Your task to perform on an android device: Clear the shopping cart on bestbuy.com. Search for "acer predator" on bestbuy.com, select the first entry, add it to the cart, then select checkout. Image 0: 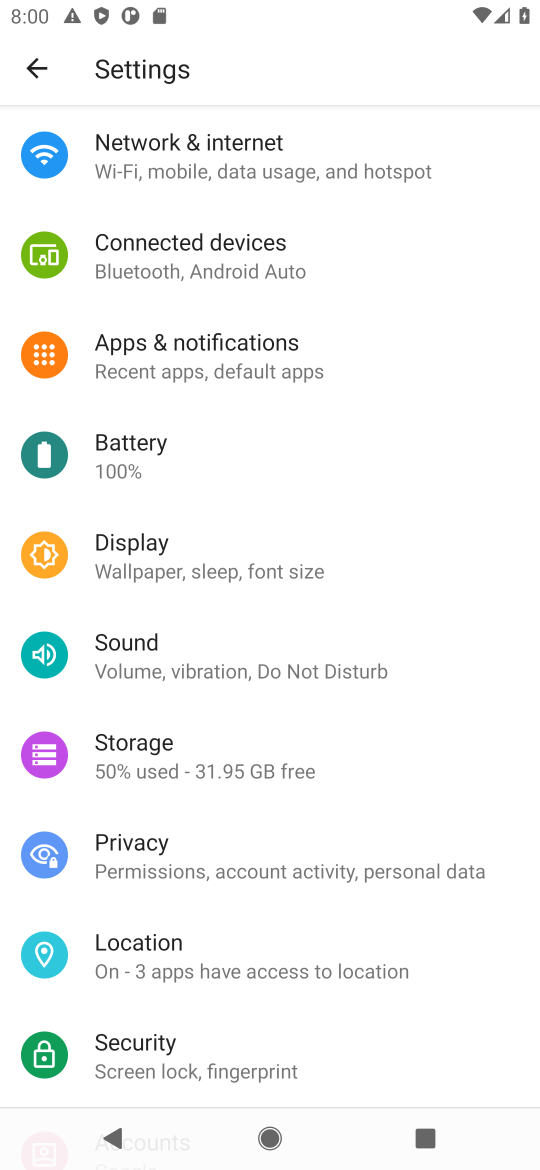
Step 0: press home button
Your task to perform on an android device: Clear the shopping cart on bestbuy.com. Search for "acer predator" on bestbuy.com, select the first entry, add it to the cart, then select checkout. Image 1: 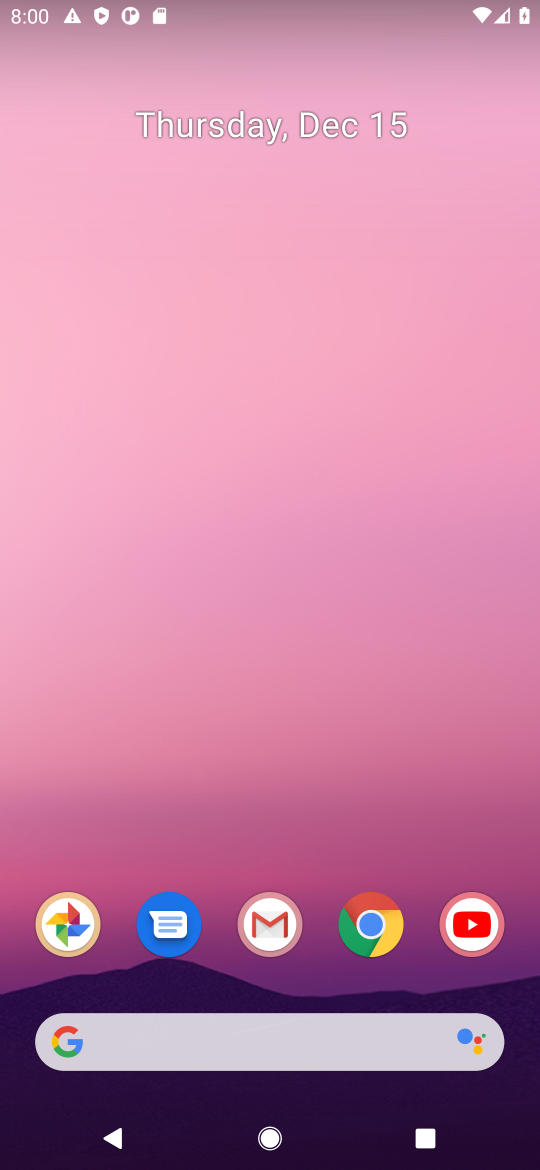
Step 1: click (389, 914)
Your task to perform on an android device: Clear the shopping cart on bestbuy.com. Search for "acer predator" on bestbuy.com, select the first entry, add it to the cart, then select checkout. Image 2: 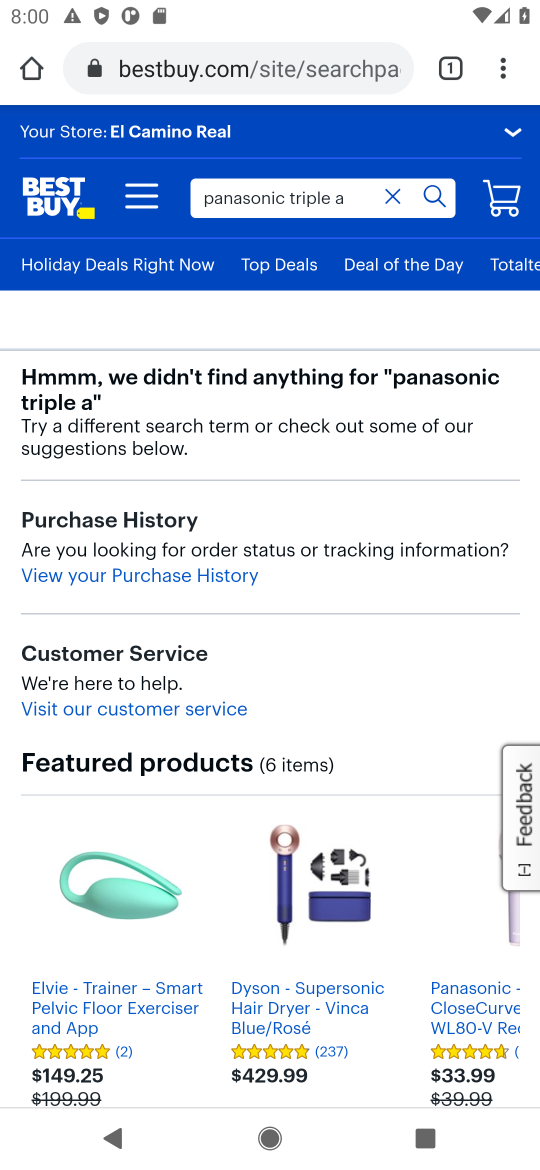
Step 2: click (487, 204)
Your task to perform on an android device: Clear the shopping cart on bestbuy.com. Search for "acer predator" on bestbuy.com, select the first entry, add it to the cart, then select checkout. Image 3: 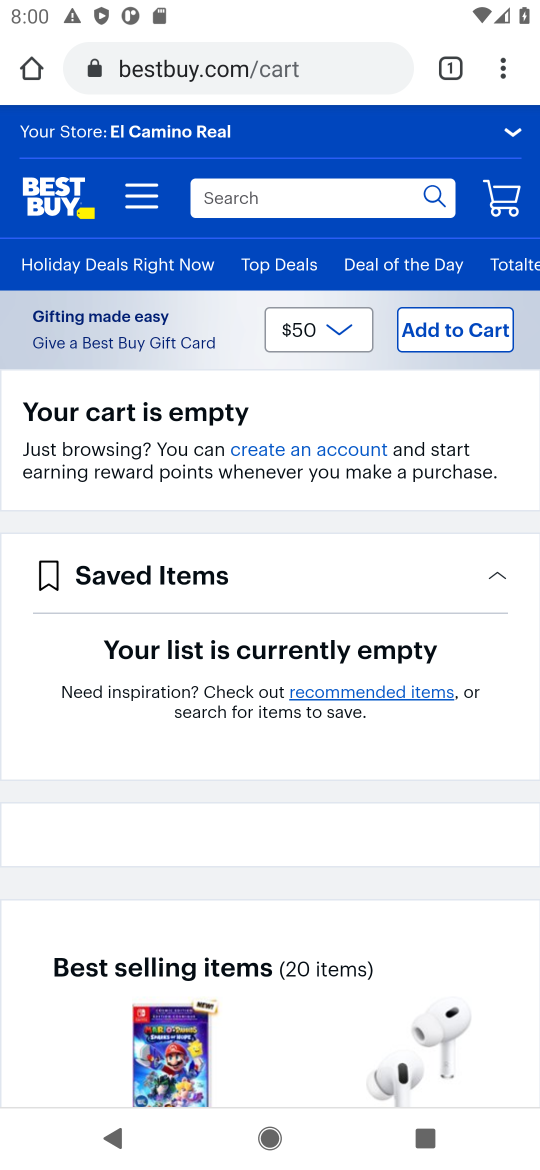
Step 3: click (287, 194)
Your task to perform on an android device: Clear the shopping cart on bestbuy.com. Search for "acer predator" on bestbuy.com, select the first entry, add it to the cart, then select checkout. Image 4: 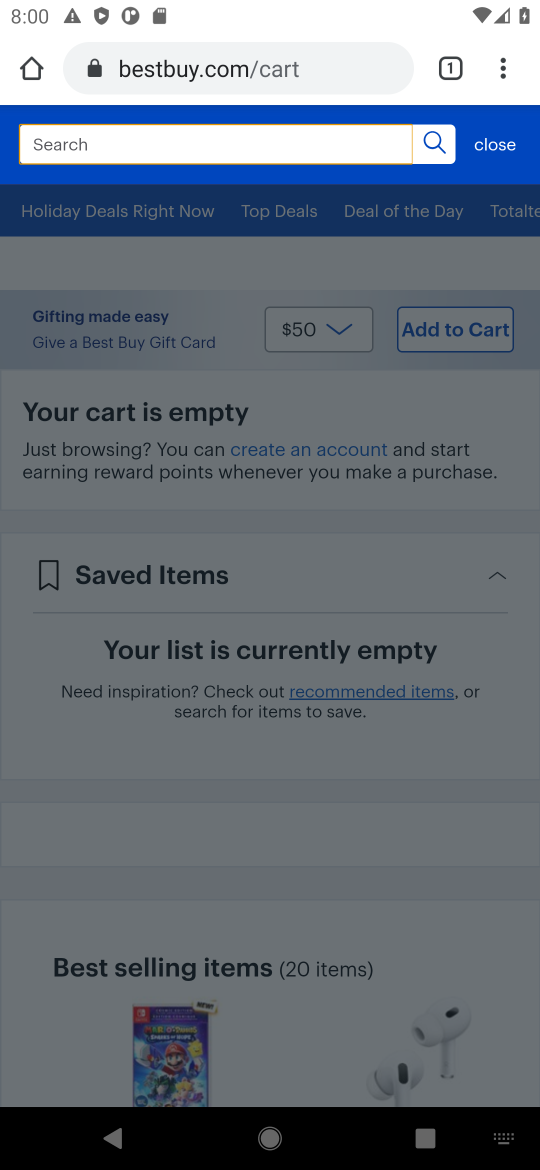
Step 4: type "acer predator"
Your task to perform on an android device: Clear the shopping cart on bestbuy.com. Search for "acer predator" on bestbuy.com, select the first entry, add it to the cart, then select checkout. Image 5: 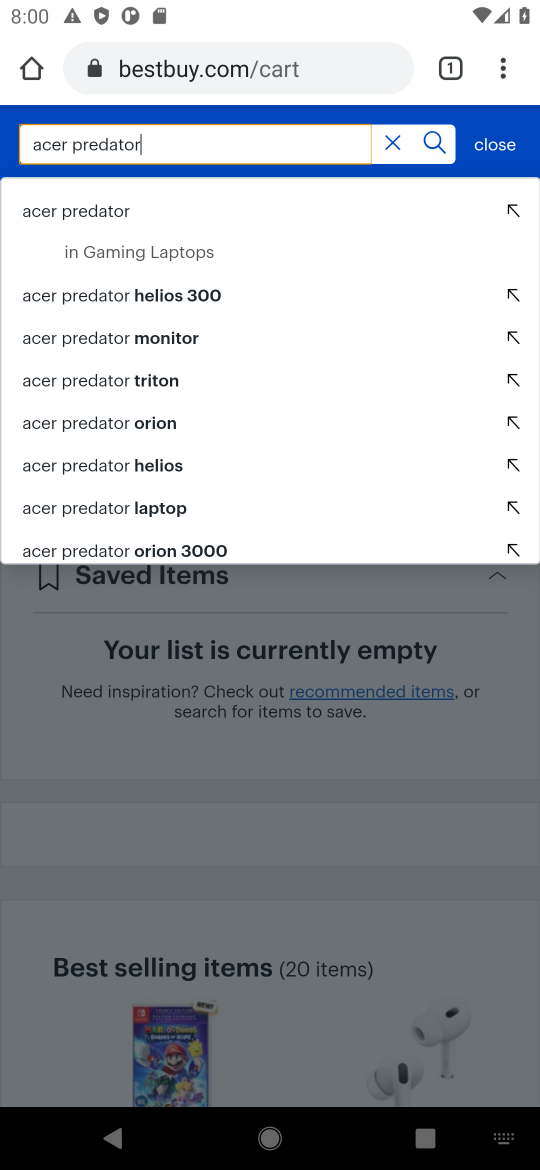
Step 5: click (443, 138)
Your task to perform on an android device: Clear the shopping cart on bestbuy.com. Search for "acer predator" on bestbuy.com, select the first entry, add it to the cart, then select checkout. Image 6: 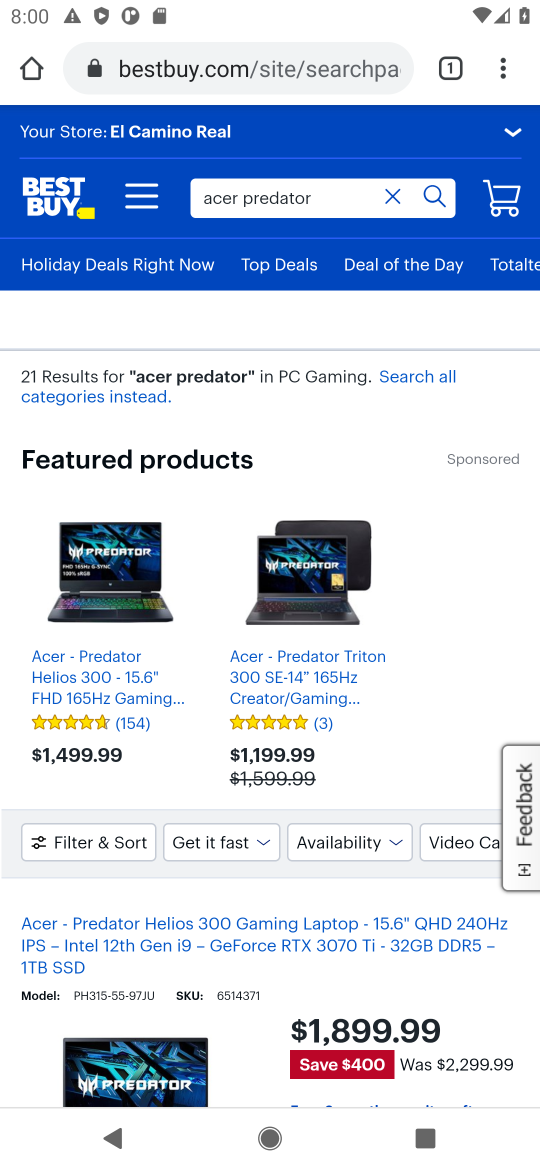
Step 6: drag from (229, 1044) to (444, 345)
Your task to perform on an android device: Clear the shopping cart on bestbuy.com. Search for "acer predator" on bestbuy.com, select the first entry, add it to the cart, then select checkout. Image 7: 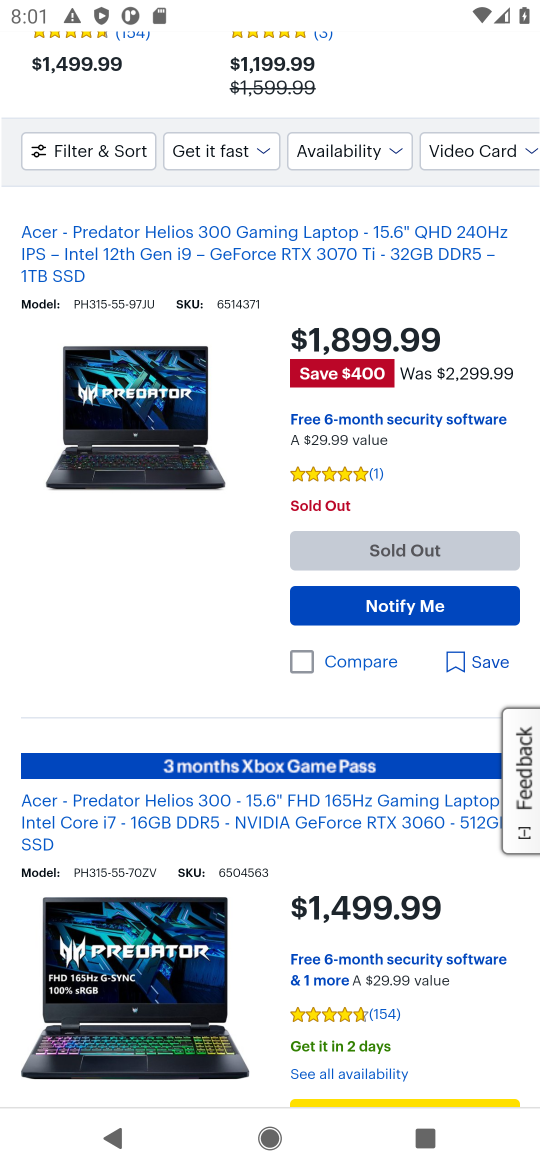
Step 7: drag from (265, 952) to (265, 370)
Your task to perform on an android device: Clear the shopping cart on bestbuy.com. Search for "acer predator" on bestbuy.com, select the first entry, add it to the cart, then select checkout. Image 8: 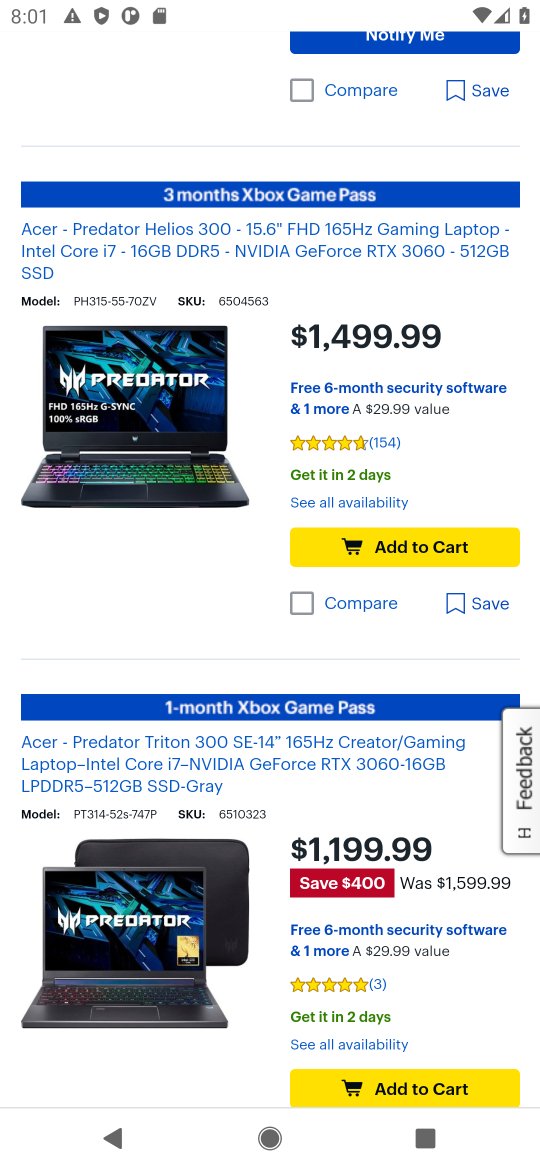
Step 8: click (412, 549)
Your task to perform on an android device: Clear the shopping cart on bestbuy.com. Search for "acer predator" on bestbuy.com, select the first entry, add it to the cart, then select checkout. Image 9: 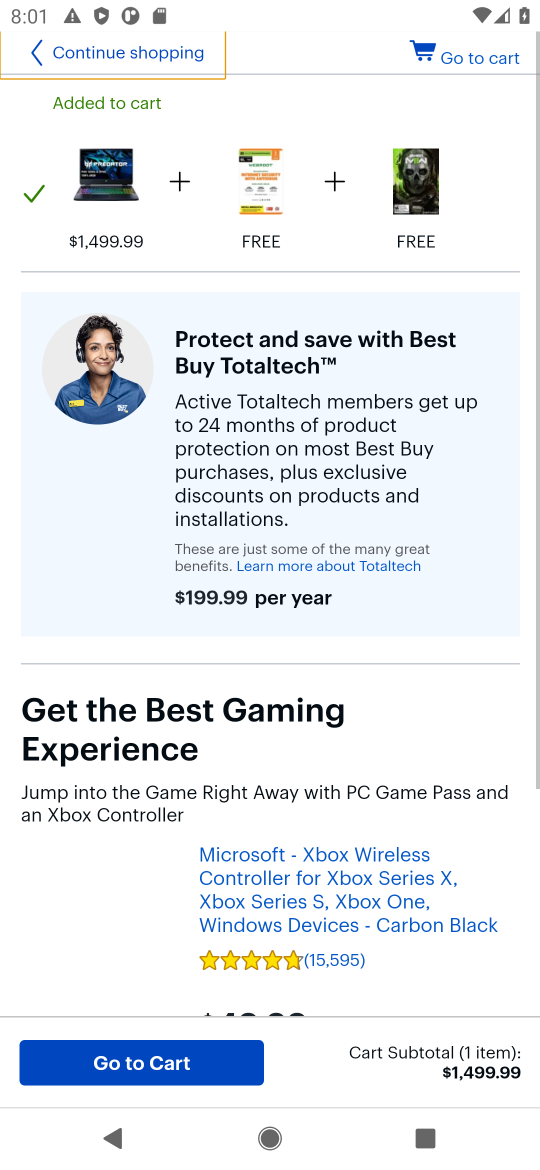
Step 9: click (452, 57)
Your task to perform on an android device: Clear the shopping cart on bestbuy.com. Search for "acer predator" on bestbuy.com, select the first entry, add it to the cart, then select checkout. Image 10: 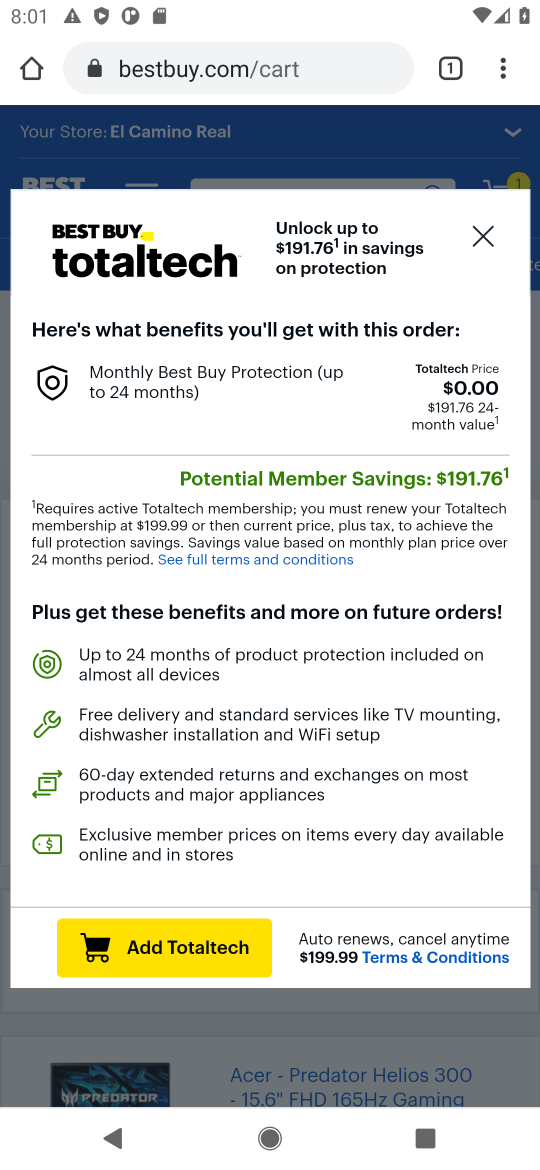
Step 10: click (488, 228)
Your task to perform on an android device: Clear the shopping cart on bestbuy.com. Search for "acer predator" on bestbuy.com, select the first entry, add it to the cart, then select checkout. Image 11: 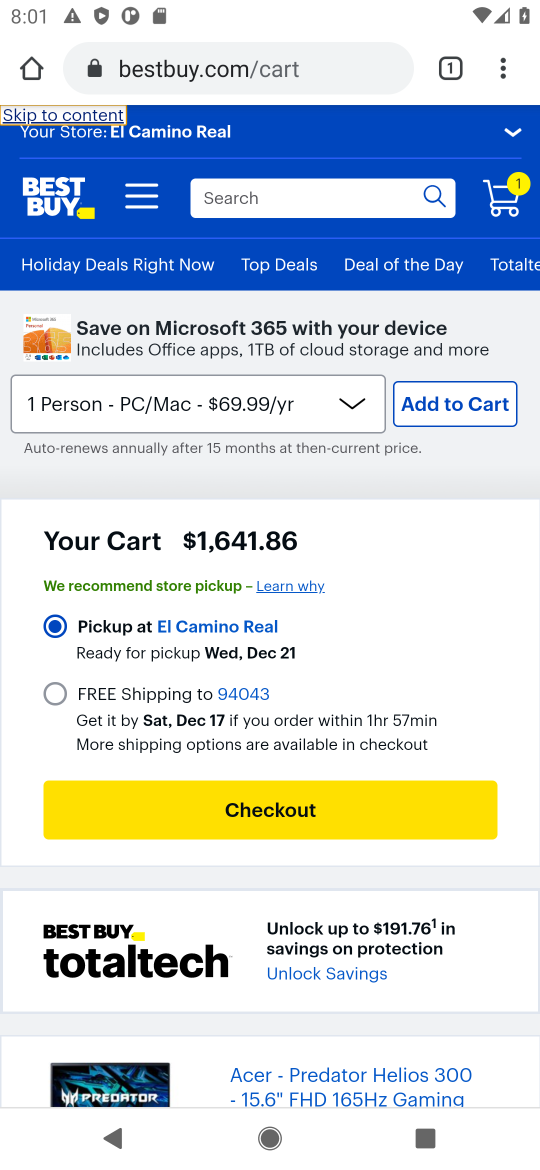
Step 11: click (223, 805)
Your task to perform on an android device: Clear the shopping cart on bestbuy.com. Search for "acer predator" on bestbuy.com, select the first entry, add it to the cart, then select checkout. Image 12: 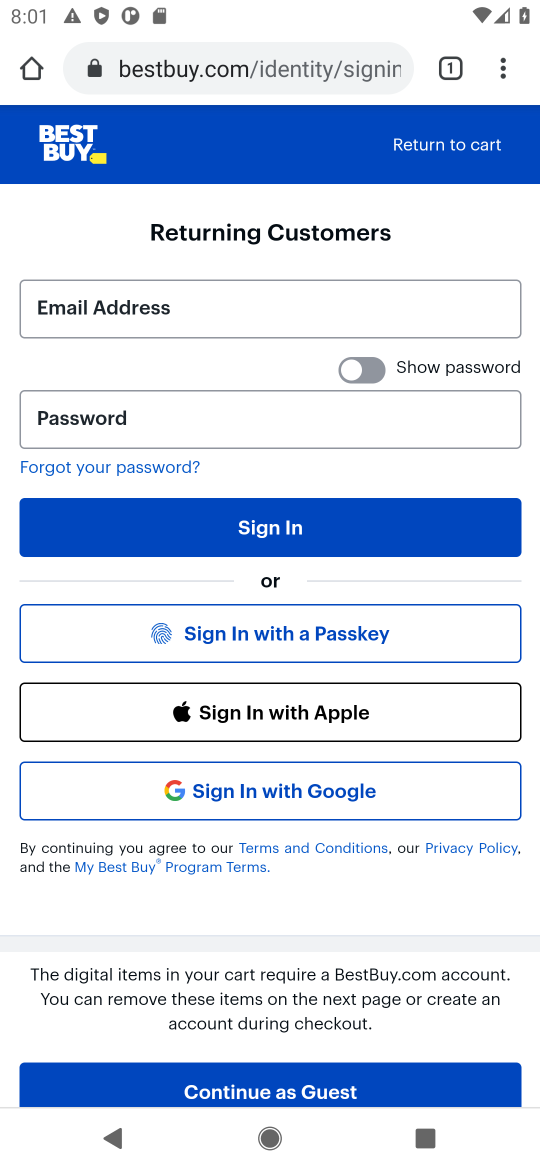
Step 12: task complete